Your task to perform on an android device: set default search engine in the chrome app Image 0: 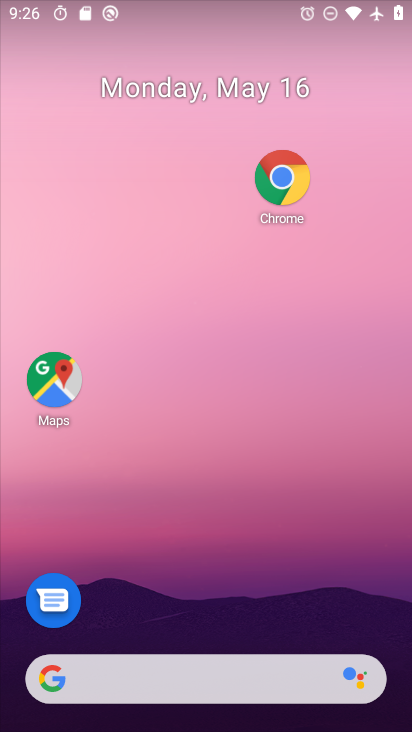
Step 0: click (294, 182)
Your task to perform on an android device: set default search engine in the chrome app Image 1: 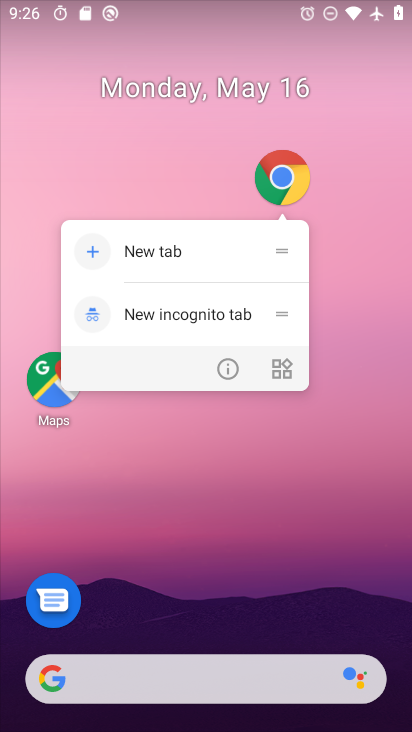
Step 1: click (277, 182)
Your task to perform on an android device: set default search engine in the chrome app Image 2: 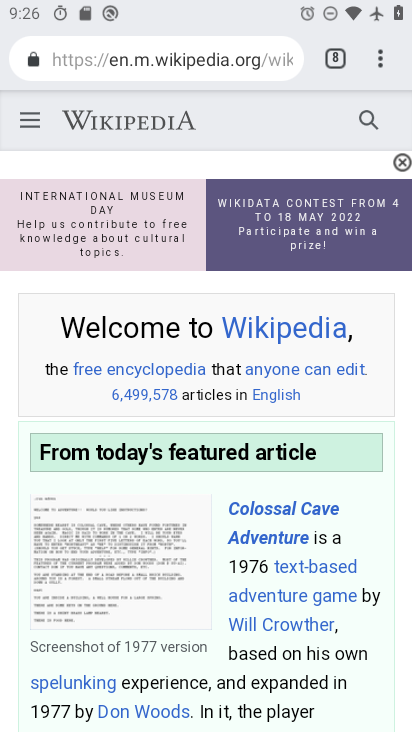
Step 2: drag from (377, 63) to (208, 632)
Your task to perform on an android device: set default search engine in the chrome app Image 3: 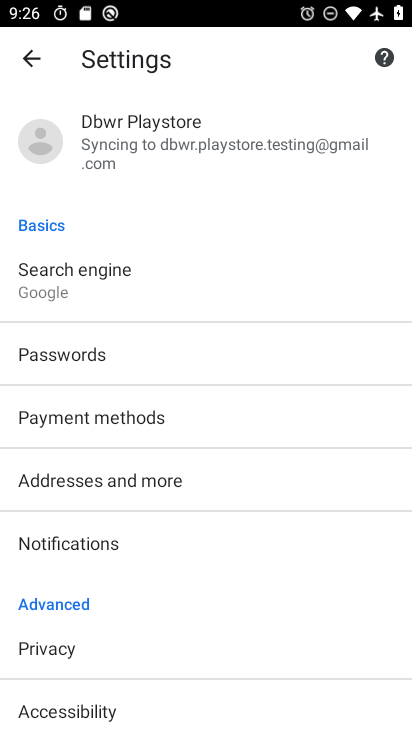
Step 3: click (78, 283)
Your task to perform on an android device: set default search engine in the chrome app Image 4: 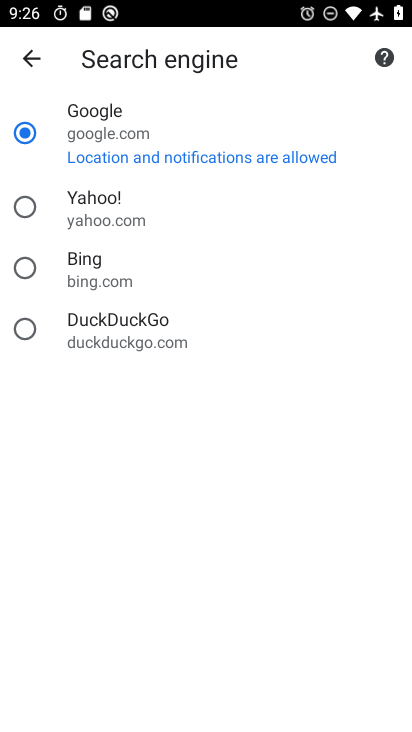
Step 4: task complete